Your task to perform on an android device: see creations saved in the google photos Image 0: 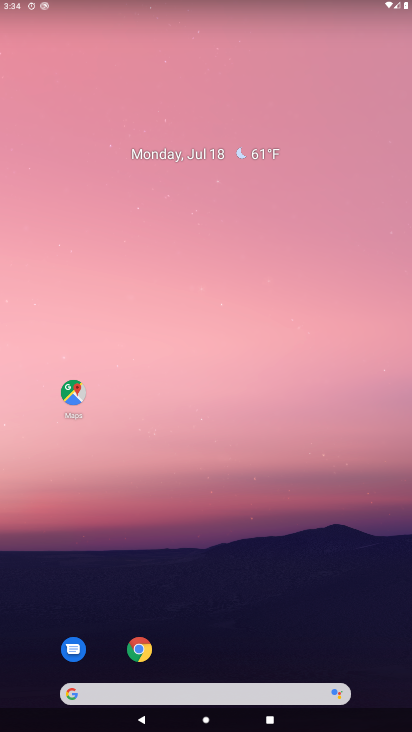
Step 0: drag from (113, 555) to (302, 178)
Your task to perform on an android device: see creations saved in the google photos Image 1: 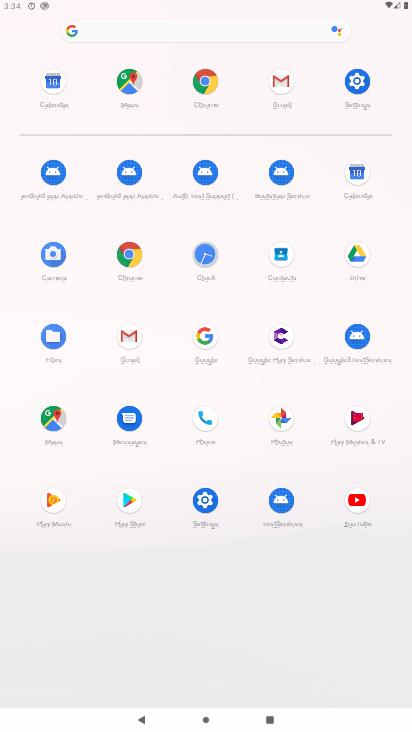
Step 1: click (272, 432)
Your task to perform on an android device: see creations saved in the google photos Image 2: 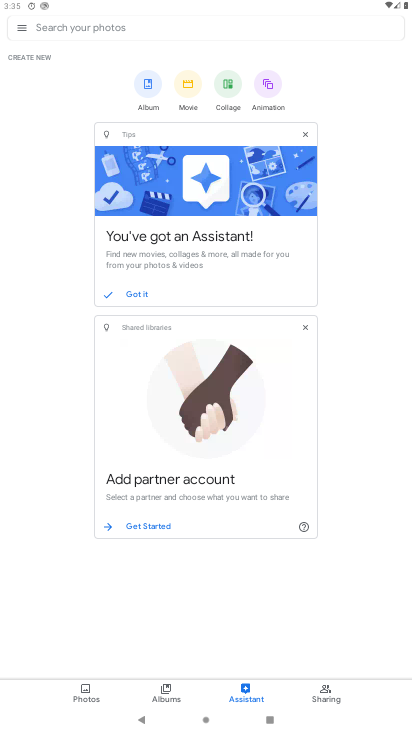
Step 2: click (79, 689)
Your task to perform on an android device: see creations saved in the google photos Image 3: 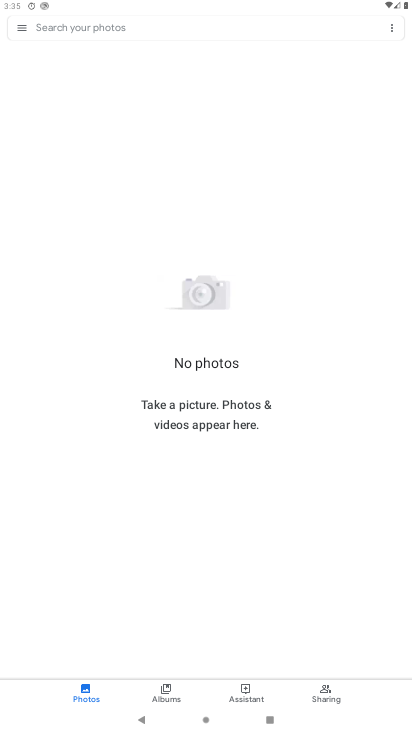
Step 3: task complete